Your task to perform on an android device: Search for "usb-c to usb-b" on costco.com, select the first entry, add it to the cart, then select checkout. Image 0: 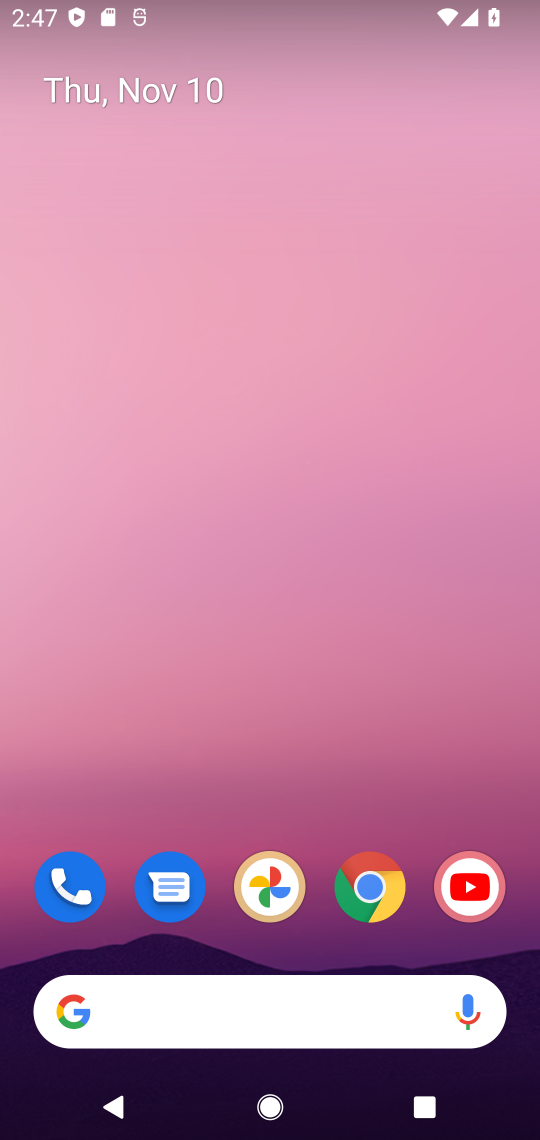
Step 0: drag from (332, 918) to (400, 17)
Your task to perform on an android device: Search for "usb-c to usb-b" on costco.com, select the first entry, add it to the cart, then select checkout. Image 1: 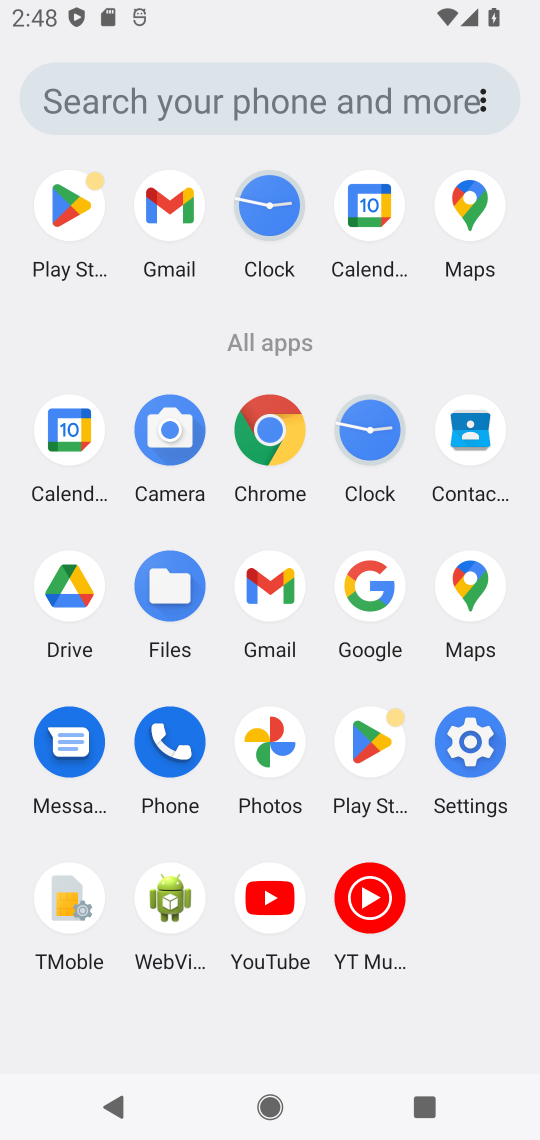
Step 1: click (268, 431)
Your task to perform on an android device: Search for "usb-c to usb-b" on costco.com, select the first entry, add it to the cart, then select checkout. Image 2: 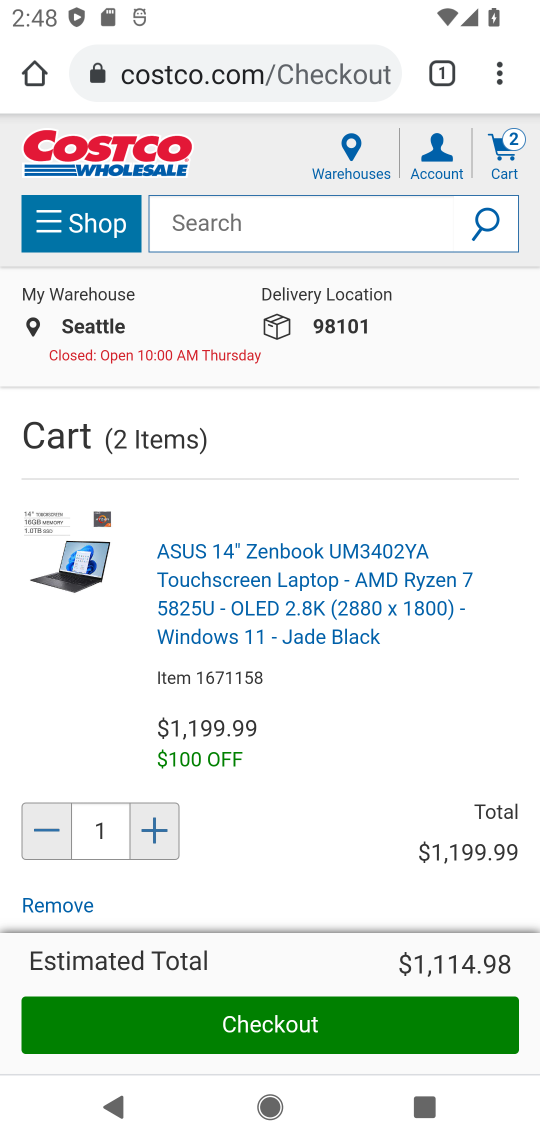
Step 2: click (248, 70)
Your task to perform on an android device: Search for "usb-c to usb-b" on costco.com, select the first entry, add it to the cart, then select checkout. Image 3: 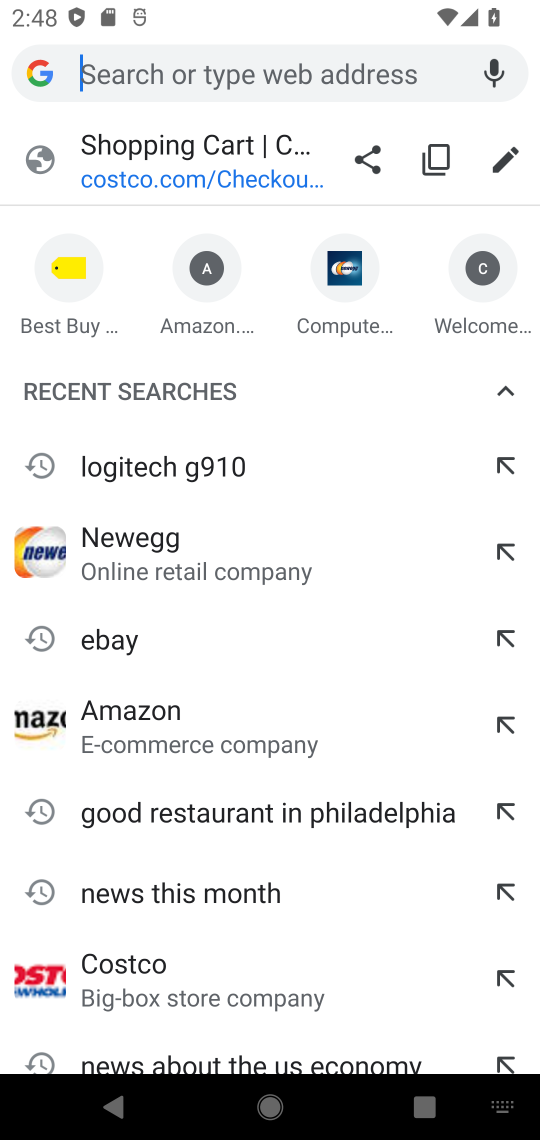
Step 3: type "costco.com"
Your task to perform on an android device: Search for "usb-c to usb-b" on costco.com, select the first entry, add it to the cart, then select checkout. Image 4: 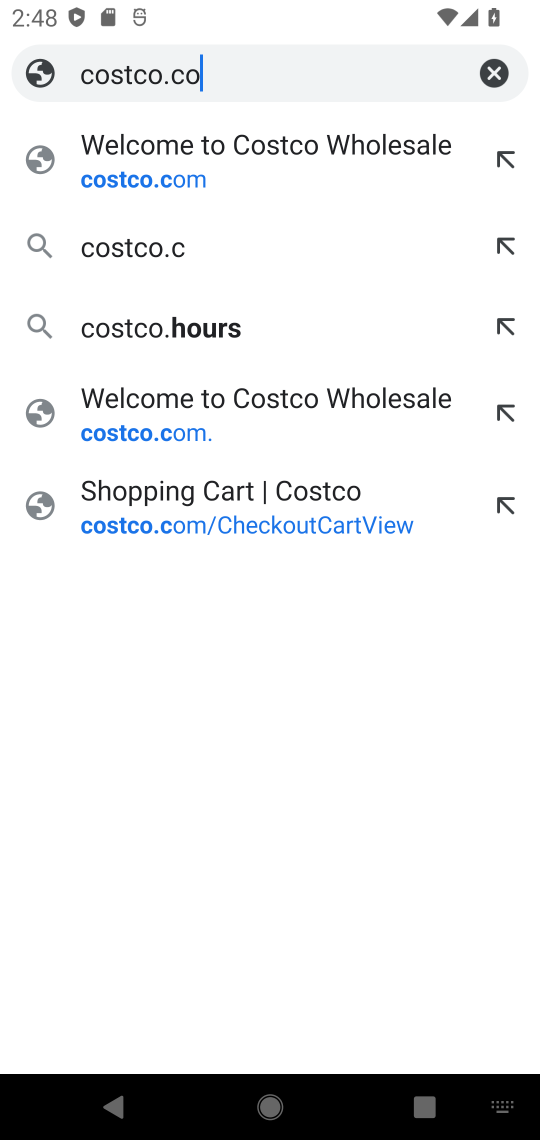
Step 4: press enter
Your task to perform on an android device: Search for "usb-c to usb-b" on costco.com, select the first entry, add it to the cart, then select checkout. Image 5: 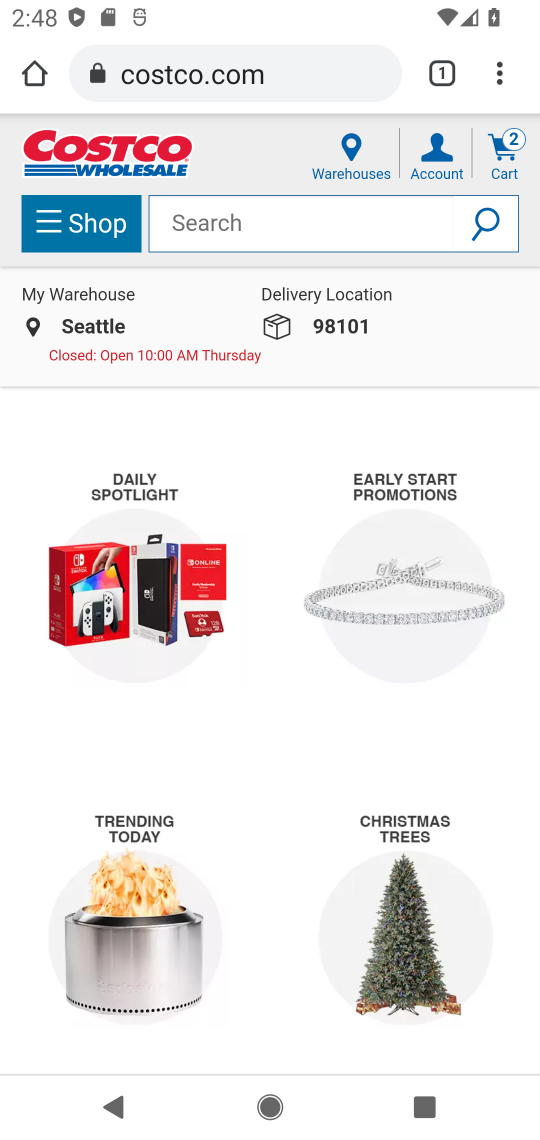
Step 5: click (252, 215)
Your task to perform on an android device: Search for "usb-c to usb-b" on costco.com, select the first entry, add it to the cart, then select checkout. Image 6: 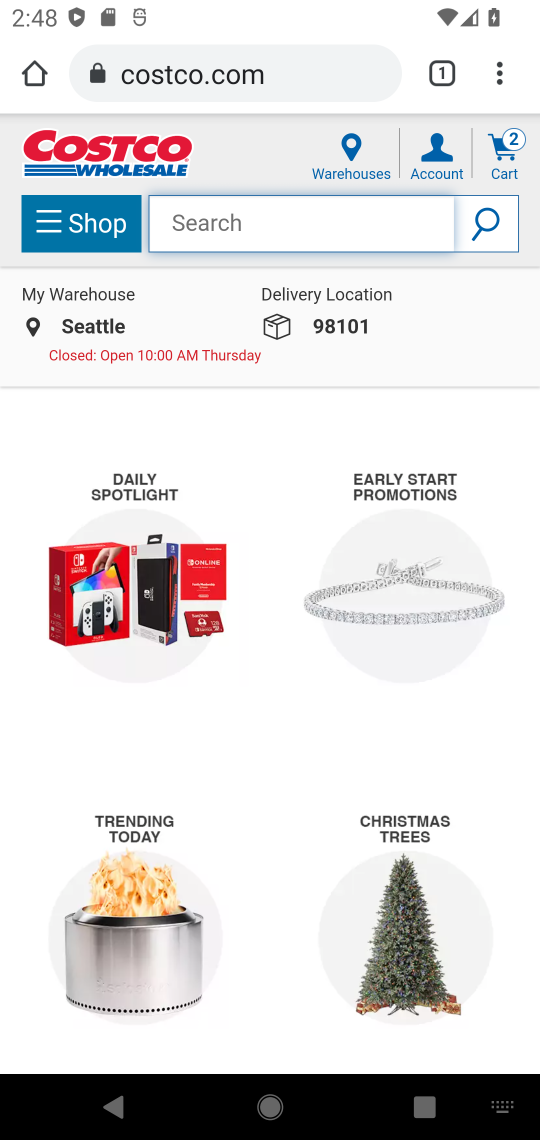
Step 6: type "usb-c to usb-b"
Your task to perform on an android device: Search for "usb-c to usb-b" on costco.com, select the first entry, add it to the cart, then select checkout. Image 7: 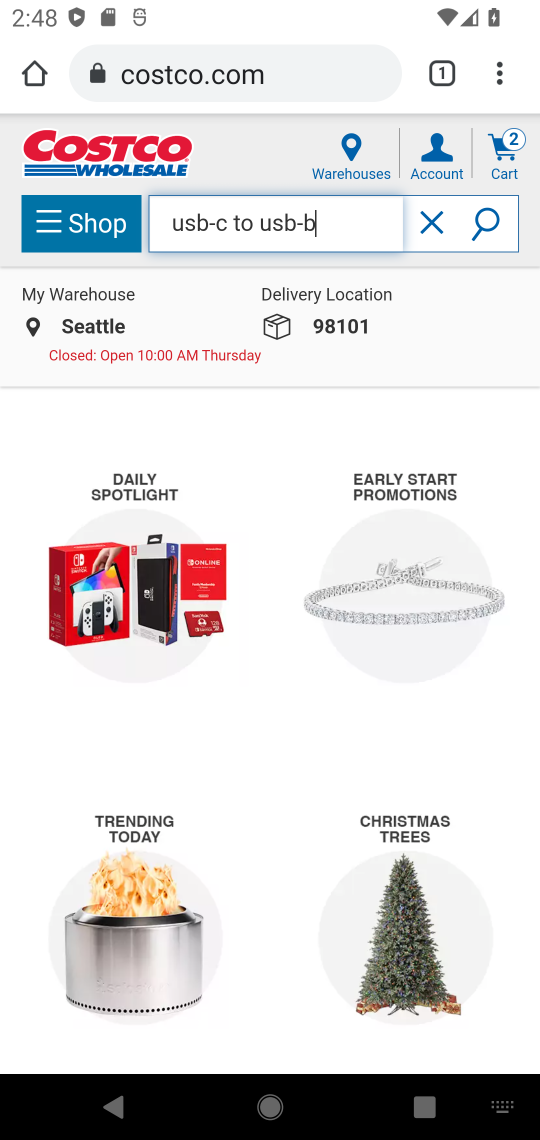
Step 7: press enter
Your task to perform on an android device: Search for "usb-c to usb-b" on costco.com, select the first entry, add it to the cart, then select checkout. Image 8: 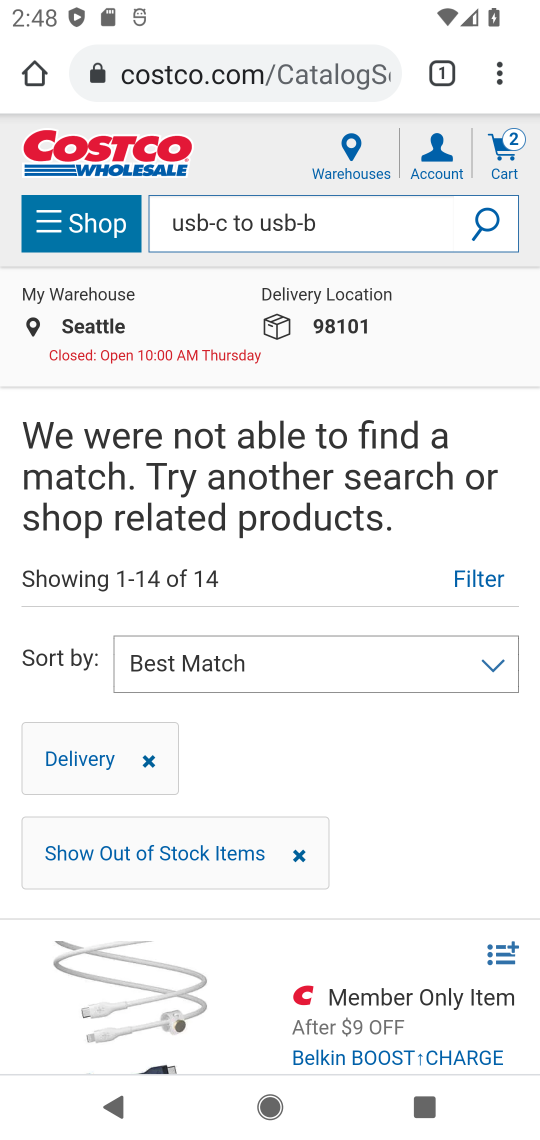
Step 8: task complete